Your task to perform on an android device: toggle priority inbox in the gmail app Image 0: 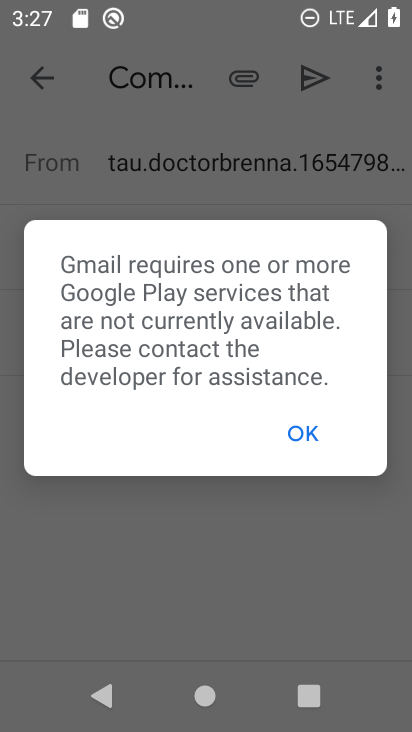
Step 0: click (299, 441)
Your task to perform on an android device: toggle priority inbox in the gmail app Image 1: 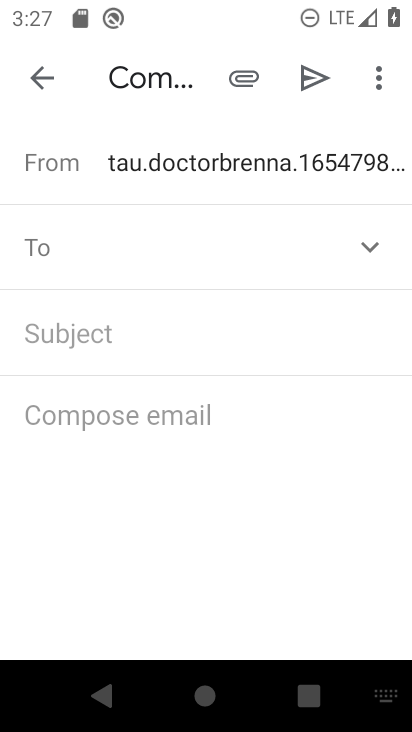
Step 1: press back button
Your task to perform on an android device: toggle priority inbox in the gmail app Image 2: 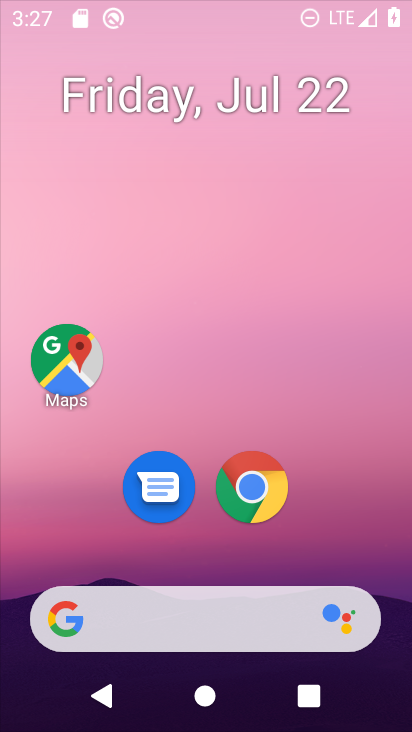
Step 2: press home button
Your task to perform on an android device: toggle priority inbox in the gmail app Image 3: 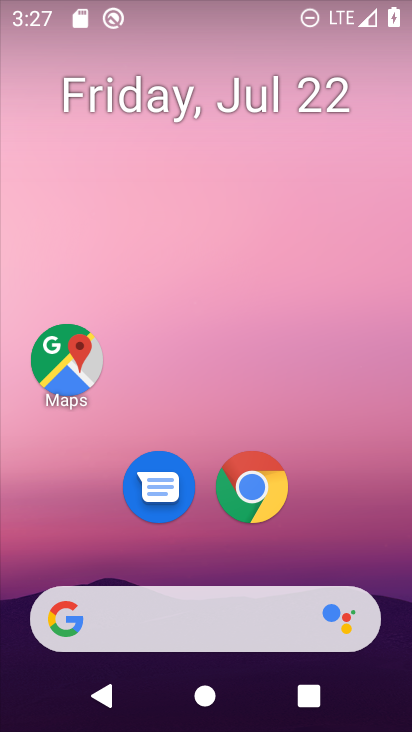
Step 3: drag from (172, 575) to (227, 15)
Your task to perform on an android device: toggle priority inbox in the gmail app Image 4: 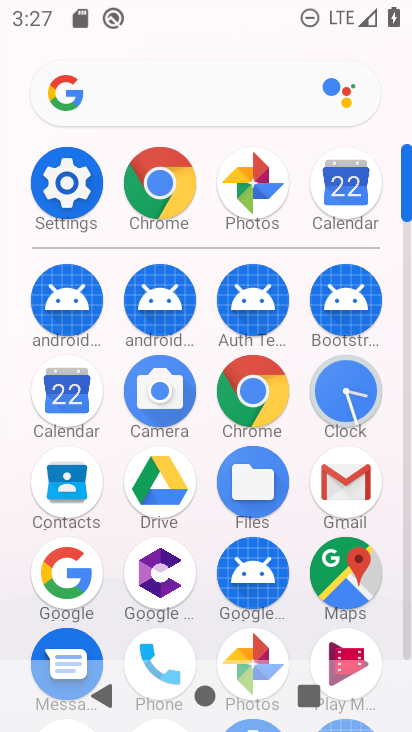
Step 4: click (341, 485)
Your task to perform on an android device: toggle priority inbox in the gmail app Image 5: 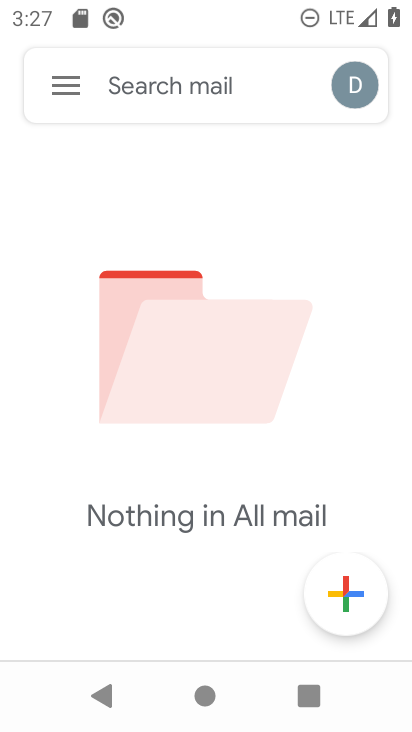
Step 5: click (74, 78)
Your task to perform on an android device: toggle priority inbox in the gmail app Image 6: 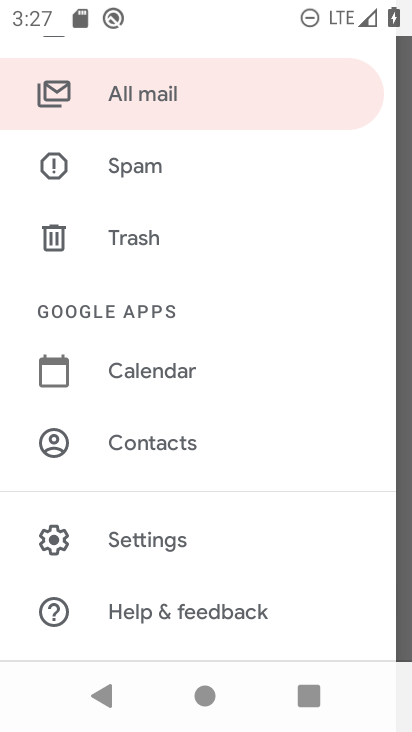
Step 6: drag from (253, 168) to (280, 118)
Your task to perform on an android device: toggle priority inbox in the gmail app Image 7: 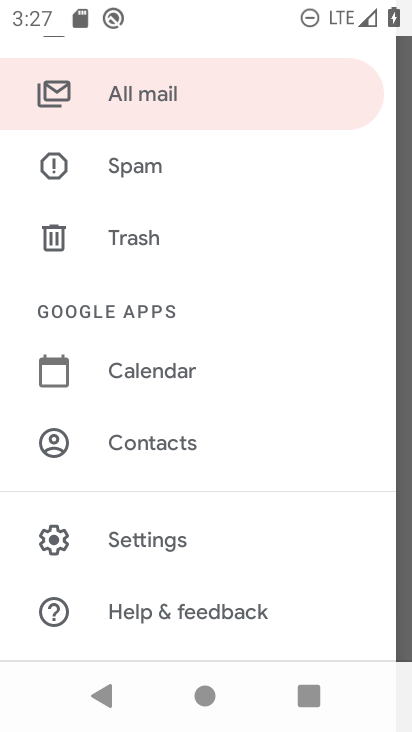
Step 7: click (141, 543)
Your task to perform on an android device: toggle priority inbox in the gmail app Image 8: 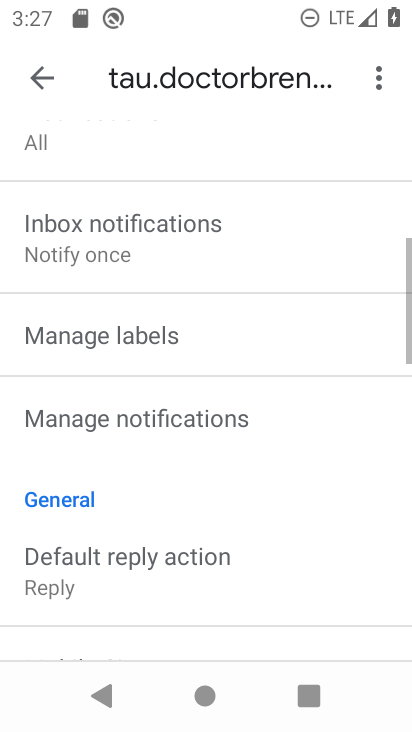
Step 8: drag from (148, 280) to (138, 593)
Your task to perform on an android device: toggle priority inbox in the gmail app Image 9: 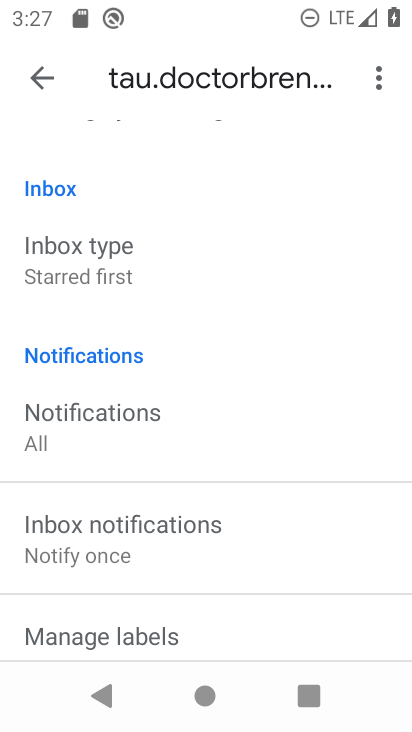
Step 9: click (110, 268)
Your task to perform on an android device: toggle priority inbox in the gmail app Image 10: 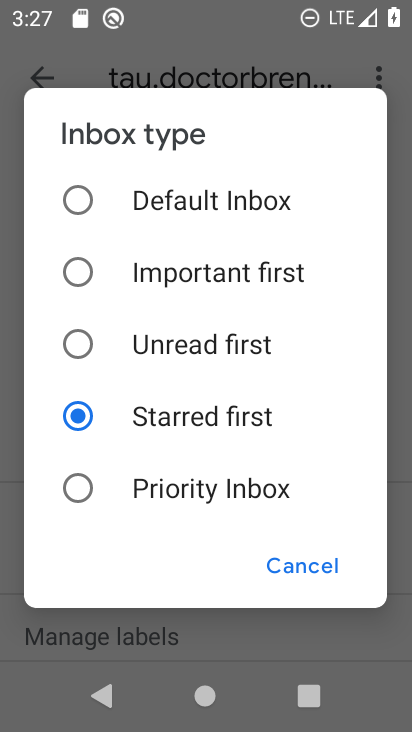
Step 10: click (76, 487)
Your task to perform on an android device: toggle priority inbox in the gmail app Image 11: 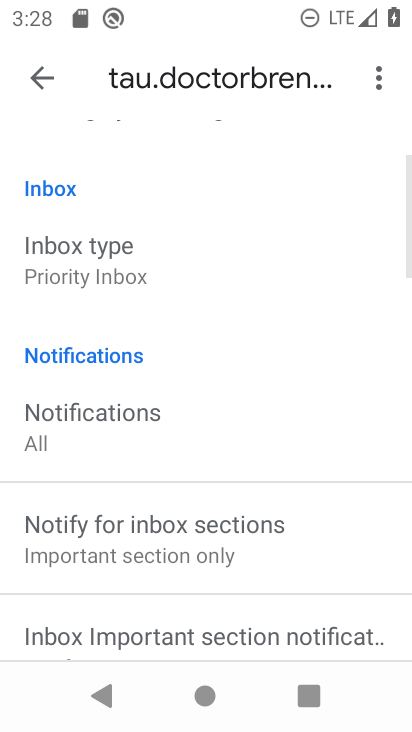
Step 11: task complete